Your task to perform on an android device: see creations saved in the google photos Image 0: 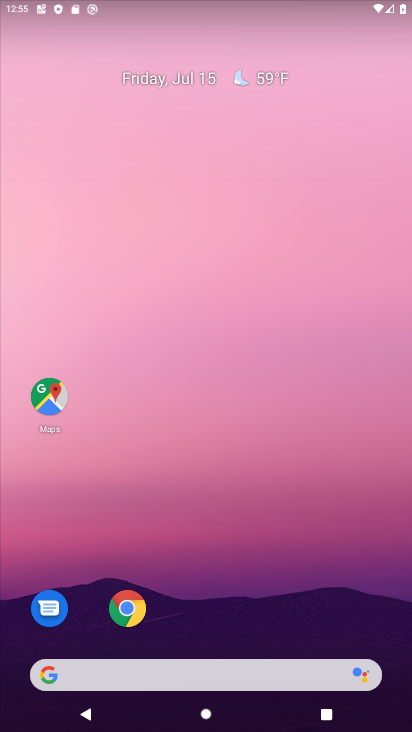
Step 0: drag from (227, 667) to (211, 357)
Your task to perform on an android device: see creations saved in the google photos Image 1: 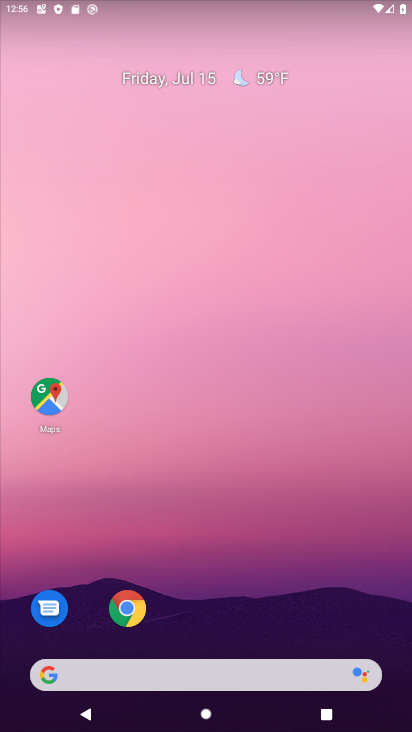
Step 1: drag from (153, 655) to (216, 118)
Your task to perform on an android device: see creations saved in the google photos Image 2: 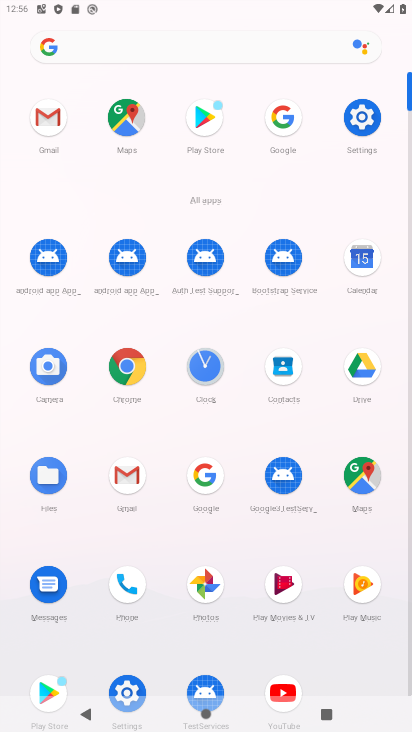
Step 2: click (207, 595)
Your task to perform on an android device: see creations saved in the google photos Image 3: 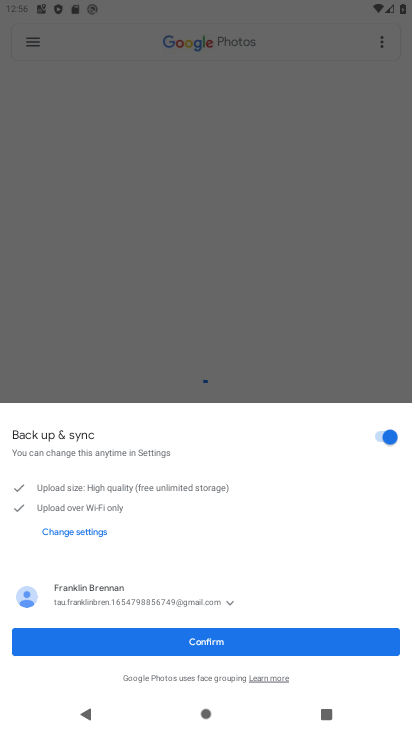
Step 3: click (193, 640)
Your task to perform on an android device: see creations saved in the google photos Image 4: 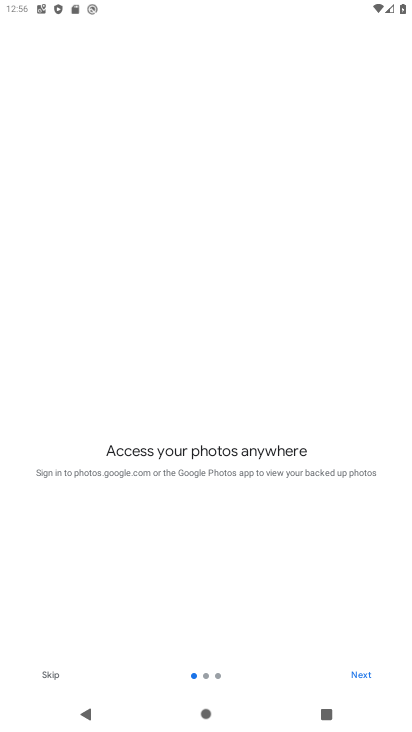
Step 4: click (354, 673)
Your task to perform on an android device: see creations saved in the google photos Image 5: 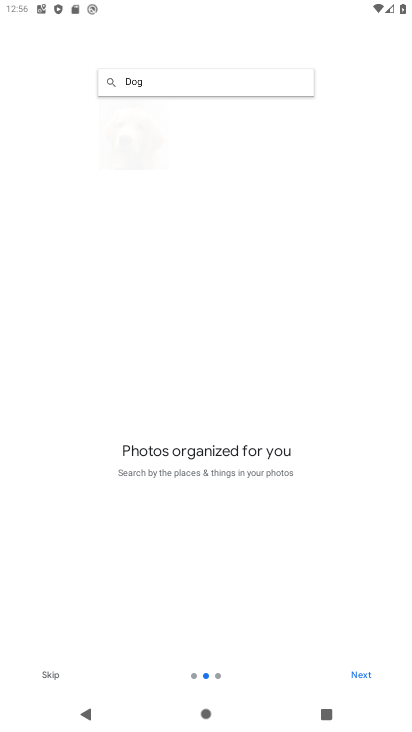
Step 5: click (354, 673)
Your task to perform on an android device: see creations saved in the google photos Image 6: 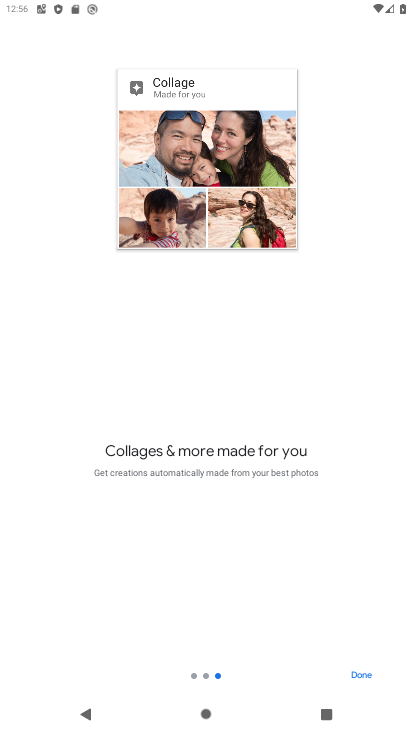
Step 6: click (355, 672)
Your task to perform on an android device: see creations saved in the google photos Image 7: 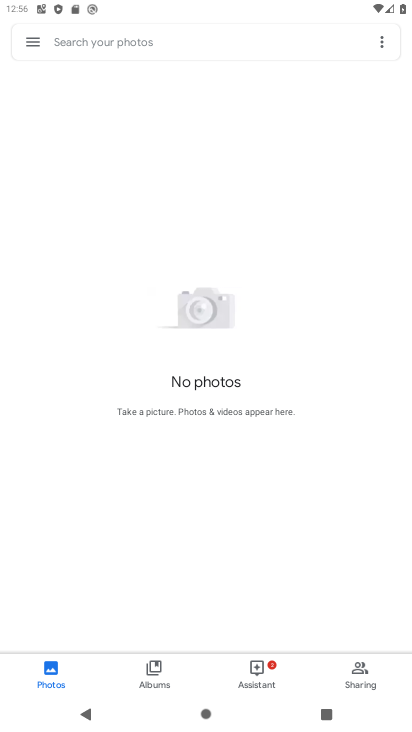
Step 7: click (157, 673)
Your task to perform on an android device: see creations saved in the google photos Image 8: 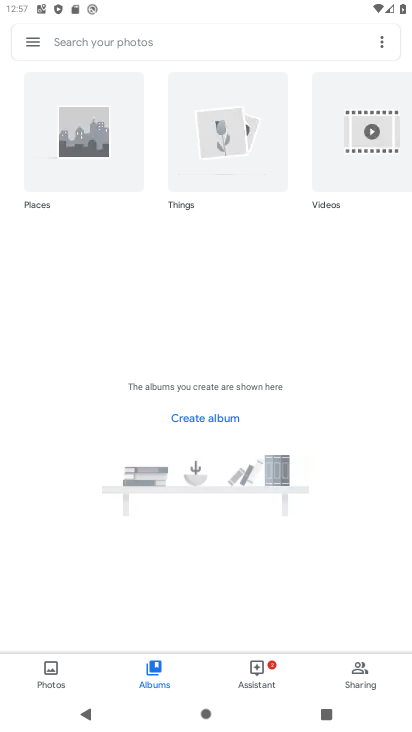
Step 8: task complete